Your task to perform on an android device: turn on priority inbox in the gmail app Image 0: 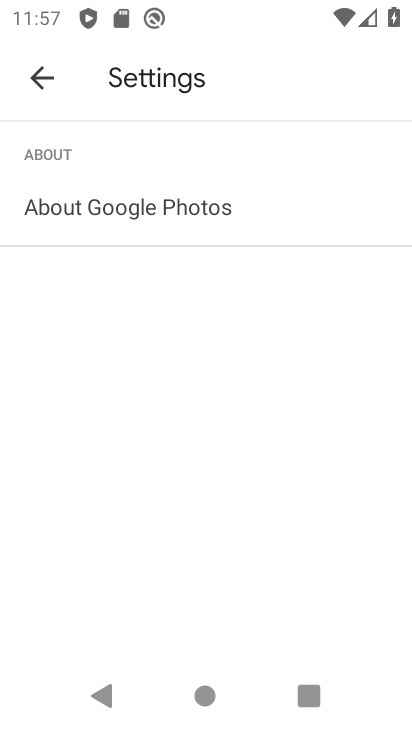
Step 0: press home button
Your task to perform on an android device: turn on priority inbox in the gmail app Image 1: 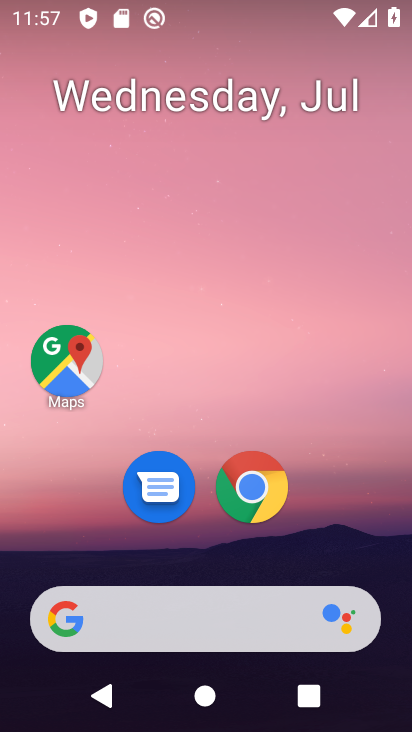
Step 1: drag from (178, 629) to (231, 161)
Your task to perform on an android device: turn on priority inbox in the gmail app Image 2: 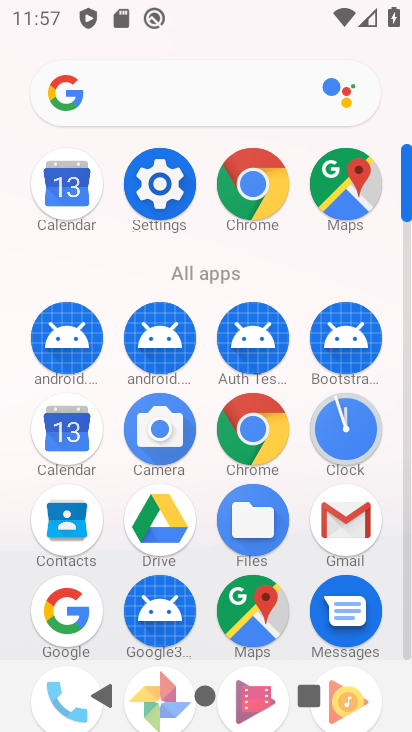
Step 2: click (347, 524)
Your task to perform on an android device: turn on priority inbox in the gmail app Image 3: 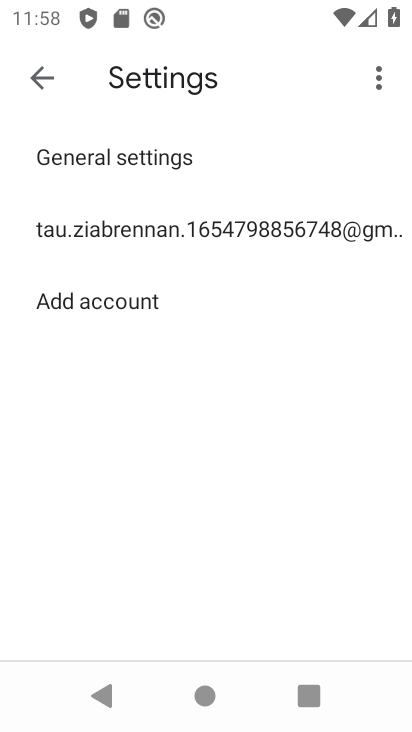
Step 3: click (198, 226)
Your task to perform on an android device: turn on priority inbox in the gmail app Image 4: 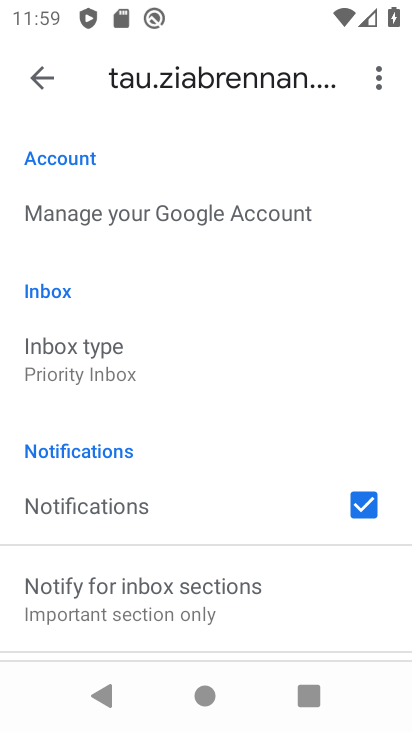
Step 4: click (112, 357)
Your task to perform on an android device: turn on priority inbox in the gmail app Image 5: 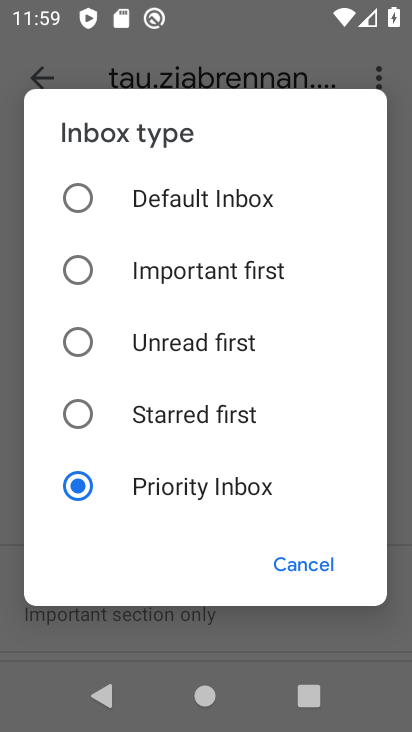
Step 5: task complete